Your task to perform on an android device: turn on bluetooth scan Image 0: 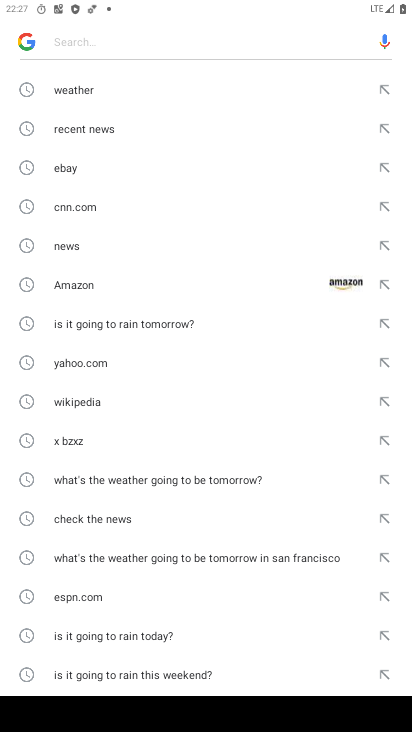
Step 0: press home button
Your task to perform on an android device: turn on bluetooth scan Image 1: 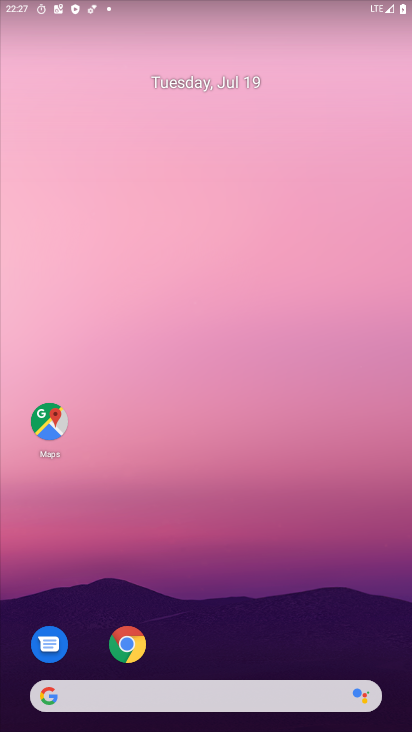
Step 1: drag from (248, 621) to (293, 402)
Your task to perform on an android device: turn on bluetooth scan Image 2: 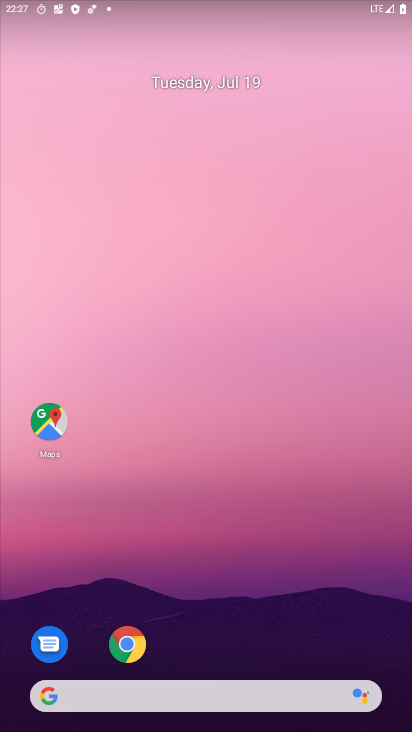
Step 2: drag from (217, 672) to (310, 179)
Your task to perform on an android device: turn on bluetooth scan Image 3: 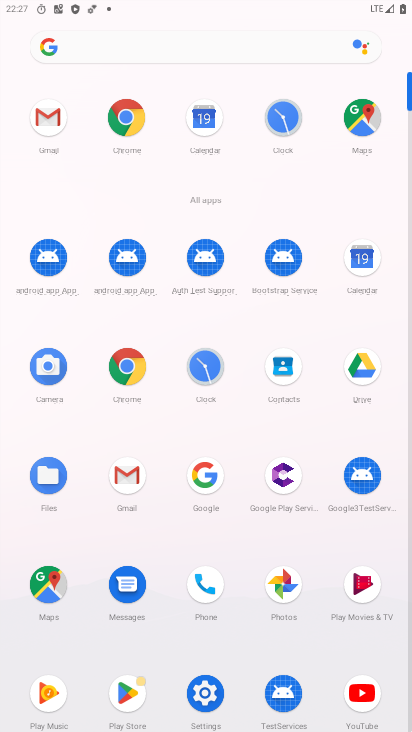
Step 3: click (208, 690)
Your task to perform on an android device: turn on bluetooth scan Image 4: 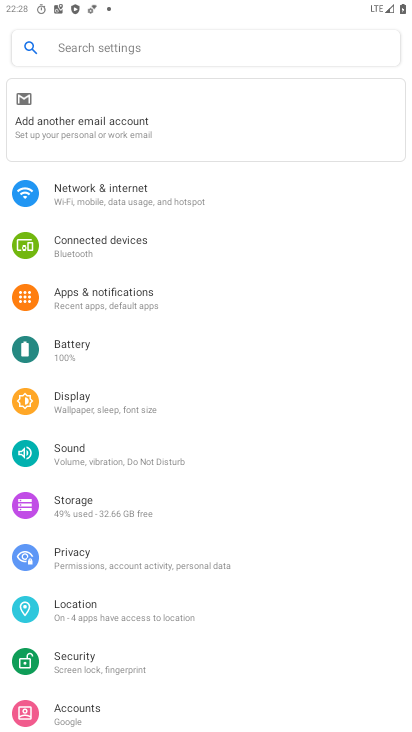
Step 4: click (47, 615)
Your task to perform on an android device: turn on bluetooth scan Image 5: 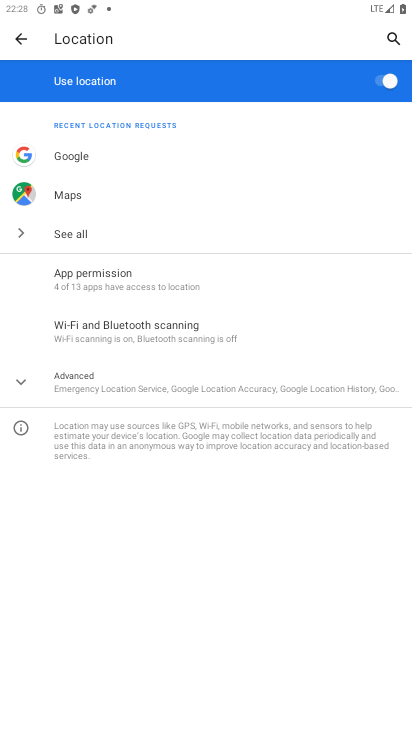
Step 5: click (88, 333)
Your task to perform on an android device: turn on bluetooth scan Image 6: 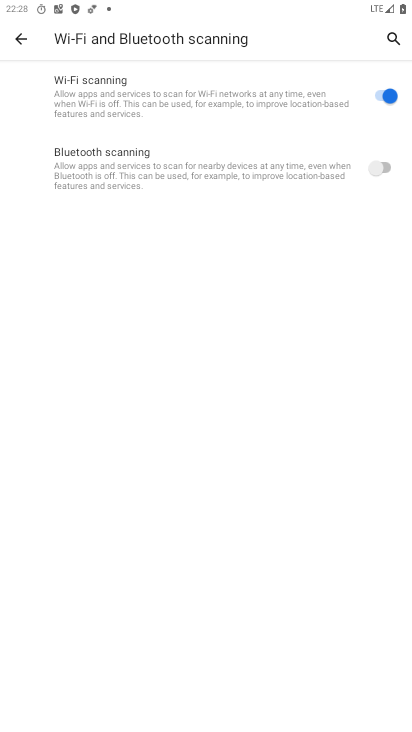
Step 6: click (141, 160)
Your task to perform on an android device: turn on bluetooth scan Image 7: 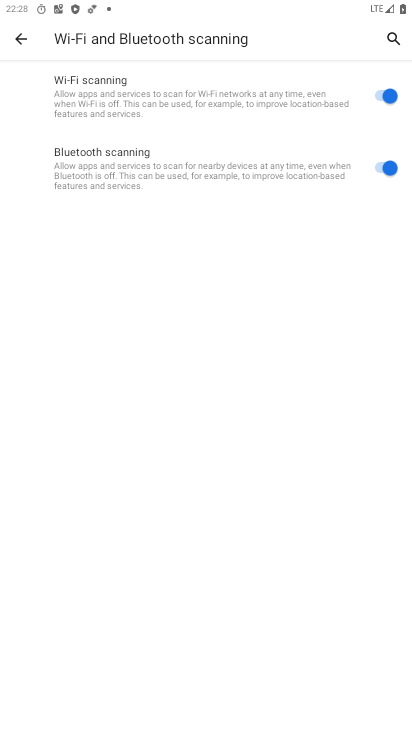
Step 7: task complete